Your task to perform on an android device: change the upload size in google photos Image 0: 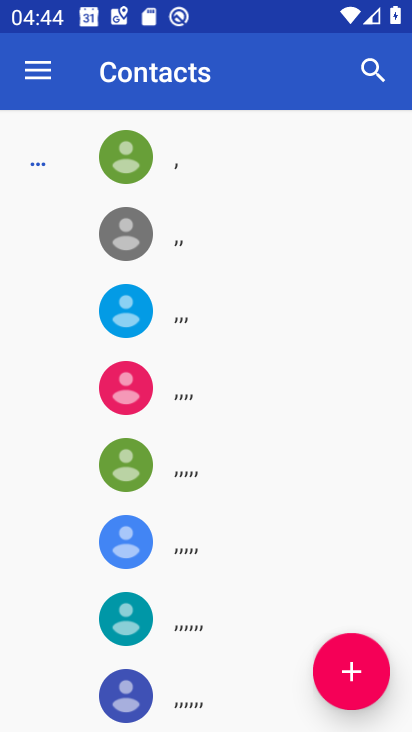
Step 0: press home button
Your task to perform on an android device: change the upload size in google photos Image 1: 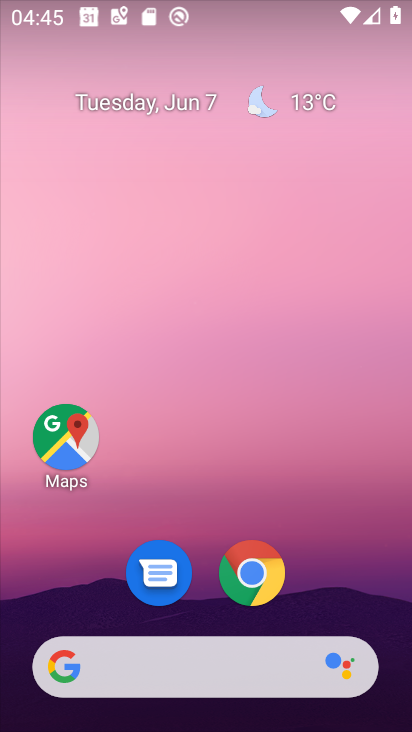
Step 1: drag from (326, 554) to (356, 43)
Your task to perform on an android device: change the upload size in google photos Image 2: 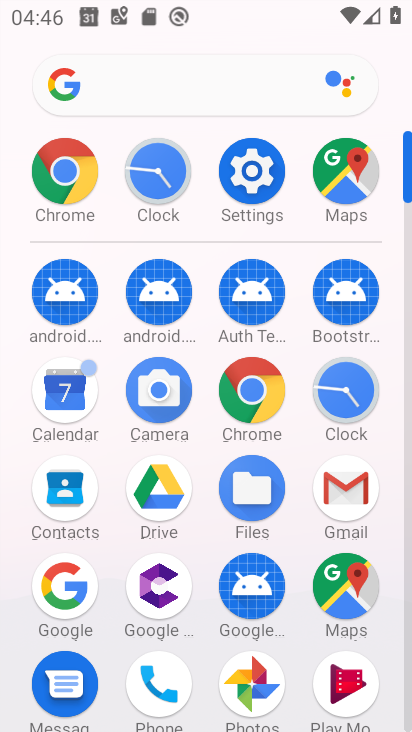
Step 2: click (245, 670)
Your task to perform on an android device: change the upload size in google photos Image 3: 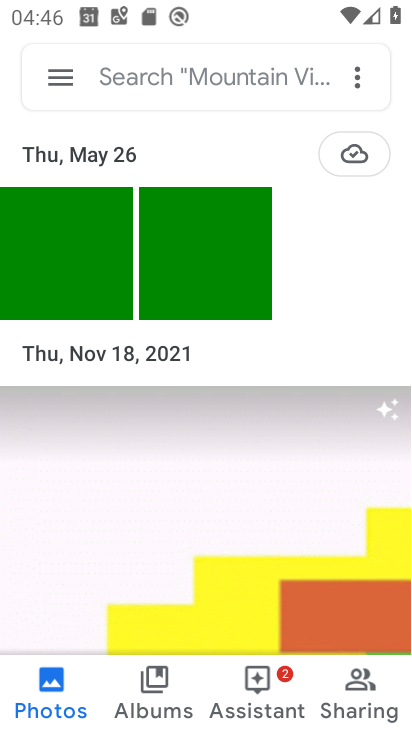
Step 3: click (54, 69)
Your task to perform on an android device: change the upload size in google photos Image 4: 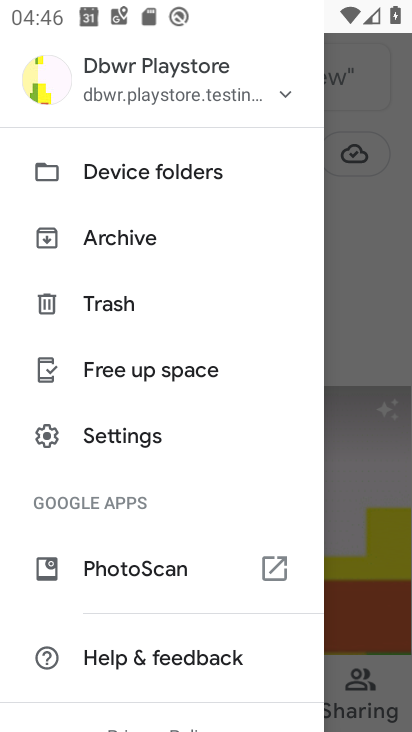
Step 4: drag from (202, 509) to (190, 261)
Your task to perform on an android device: change the upload size in google photos Image 5: 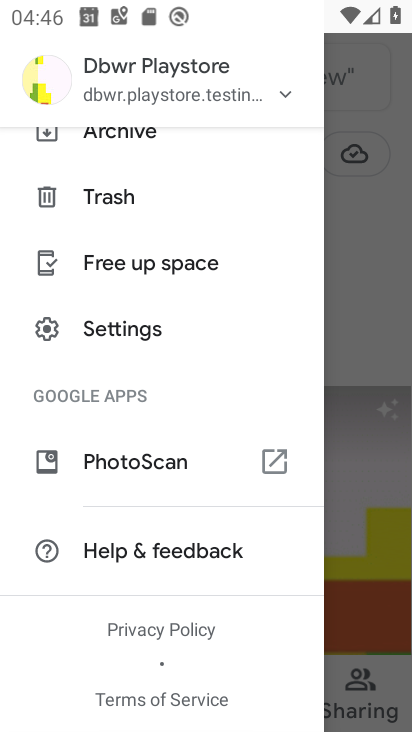
Step 5: click (142, 329)
Your task to perform on an android device: change the upload size in google photos Image 6: 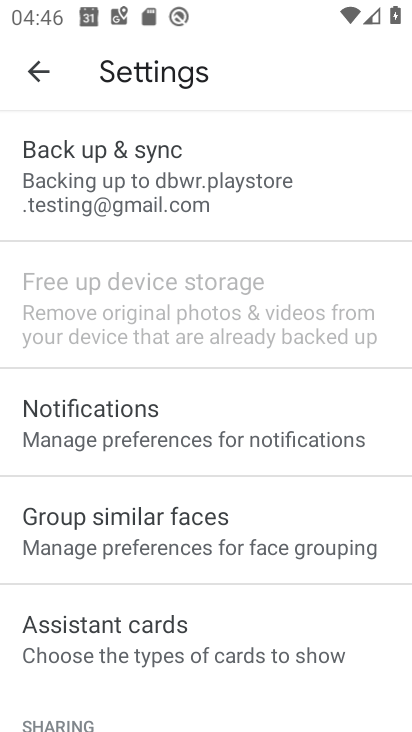
Step 6: click (150, 183)
Your task to perform on an android device: change the upload size in google photos Image 7: 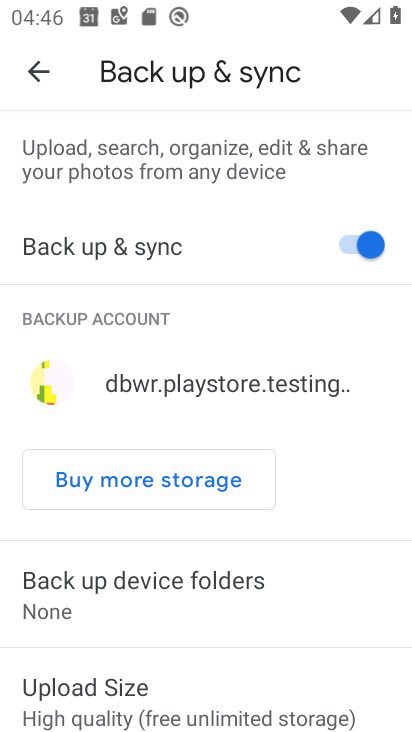
Step 7: drag from (326, 639) to (340, 240)
Your task to perform on an android device: change the upload size in google photos Image 8: 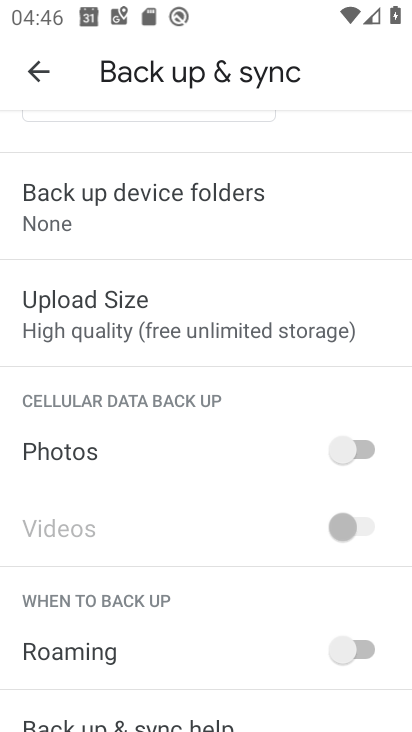
Step 8: click (90, 309)
Your task to perform on an android device: change the upload size in google photos Image 9: 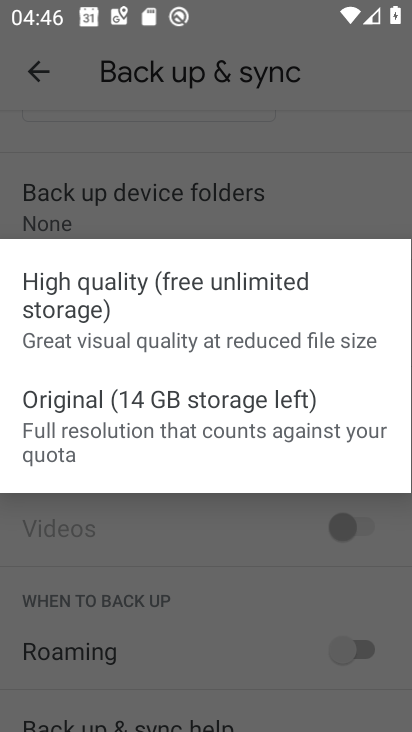
Step 9: click (114, 411)
Your task to perform on an android device: change the upload size in google photos Image 10: 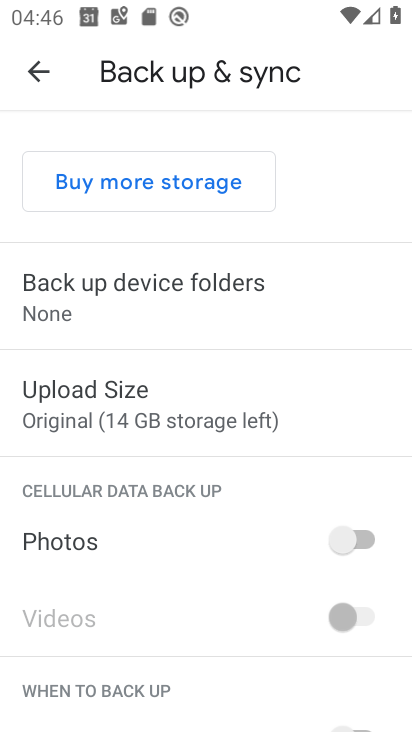
Step 10: task complete